Your task to perform on an android device: Open calendar and show me the fourth week of next month Image 0: 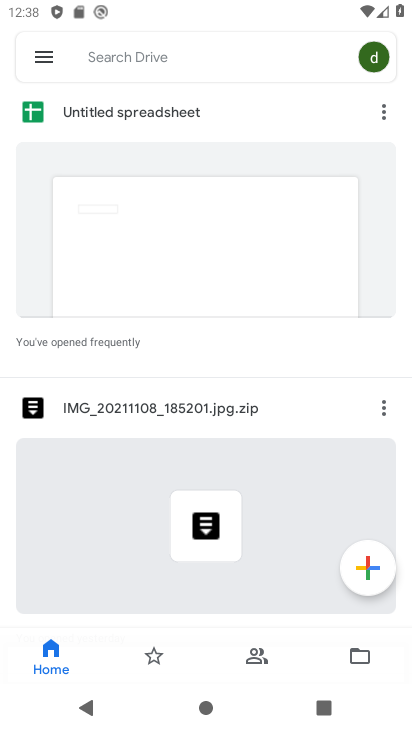
Step 0: press home button
Your task to perform on an android device: Open calendar and show me the fourth week of next month Image 1: 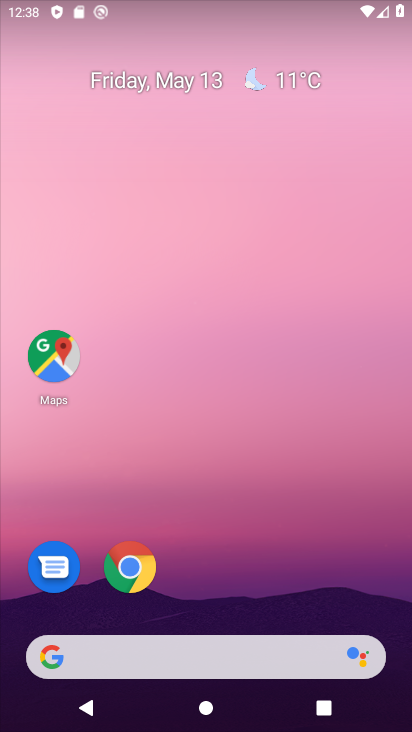
Step 1: drag from (223, 584) to (221, 228)
Your task to perform on an android device: Open calendar and show me the fourth week of next month Image 2: 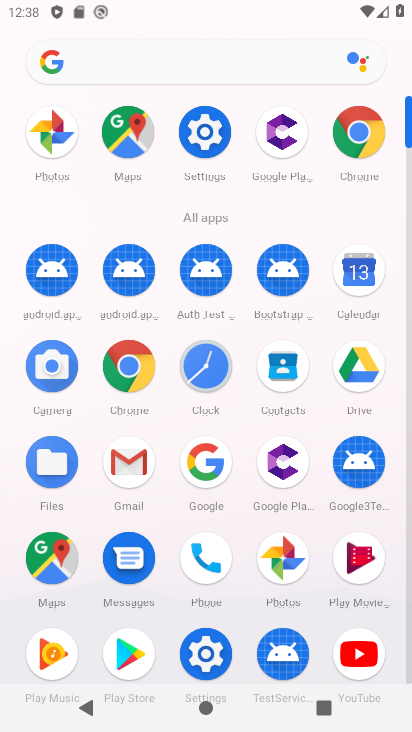
Step 2: click (354, 308)
Your task to perform on an android device: Open calendar and show me the fourth week of next month Image 3: 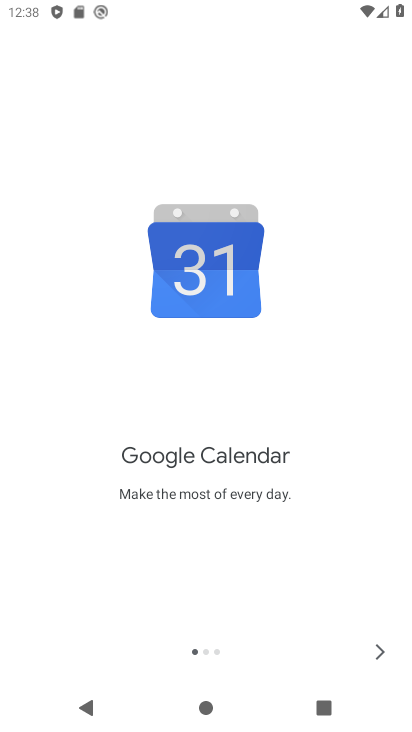
Step 3: click (383, 659)
Your task to perform on an android device: Open calendar and show me the fourth week of next month Image 4: 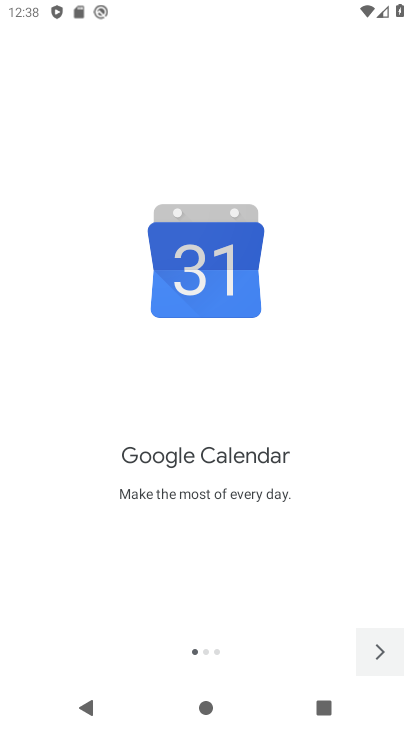
Step 4: click (367, 645)
Your task to perform on an android device: Open calendar and show me the fourth week of next month Image 5: 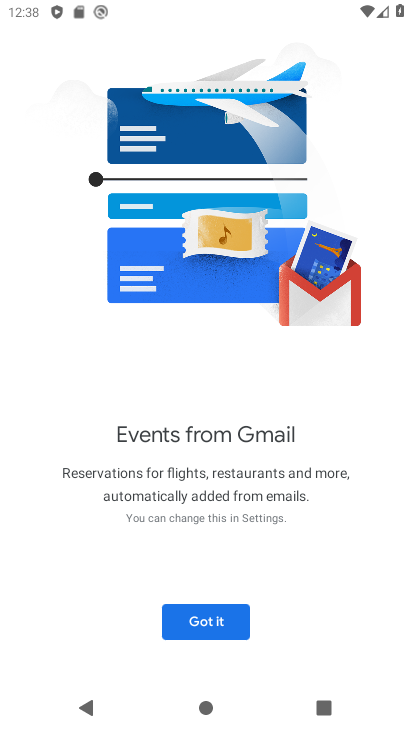
Step 5: click (220, 616)
Your task to perform on an android device: Open calendar and show me the fourth week of next month Image 6: 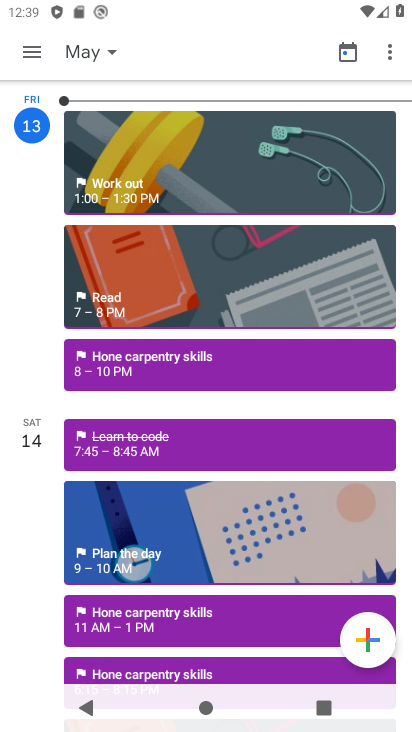
Step 6: click (24, 59)
Your task to perform on an android device: Open calendar and show me the fourth week of next month Image 7: 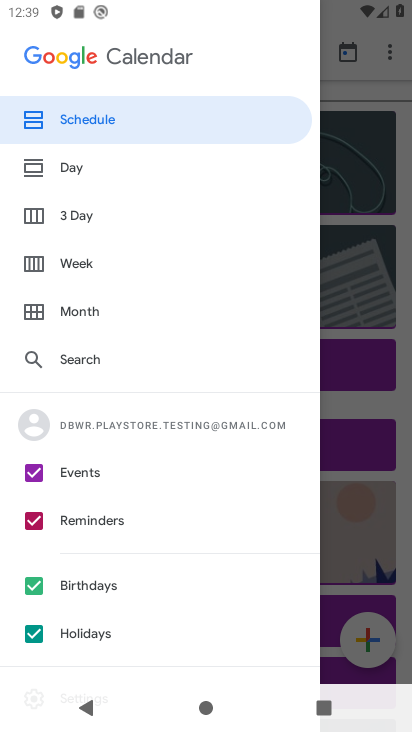
Step 7: click (96, 262)
Your task to perform on an android device: Open calendar and show me the fourth week of next month Image 8: 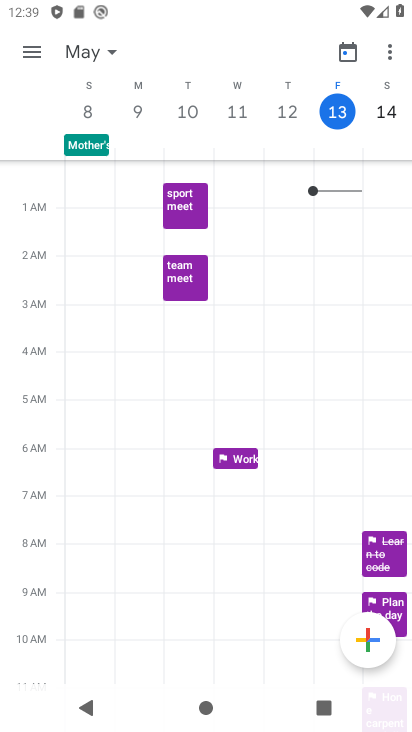
Step 8: click (91, 46)
Your task to perform on an android device: Open calendar and show me the fourth week of next month Image 9: 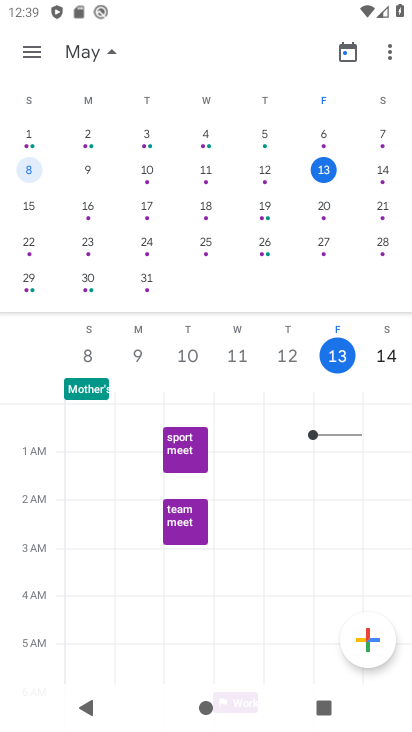
Step 9: drag from (336, 226) to (34, 218)
Your task to perform on an android device: Open calendar and show me the fourth week of next month Image 10: 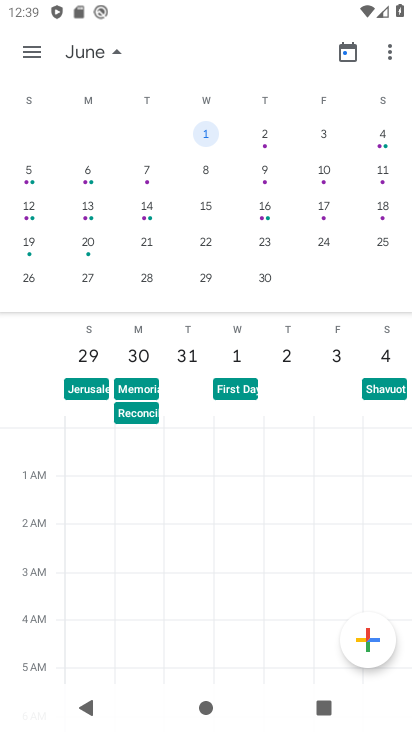
Step 10: click (23, 246)
Your task to perform on an android device: Open calendar and show me the fourth week of next month Image 11: 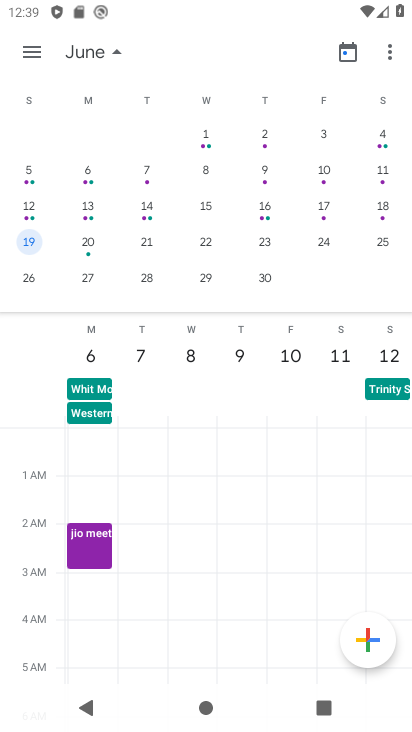
Step 11: click (32, 246)
Your task to perform on an android device: Open calendar and show me the fourth week of next month Image 12: 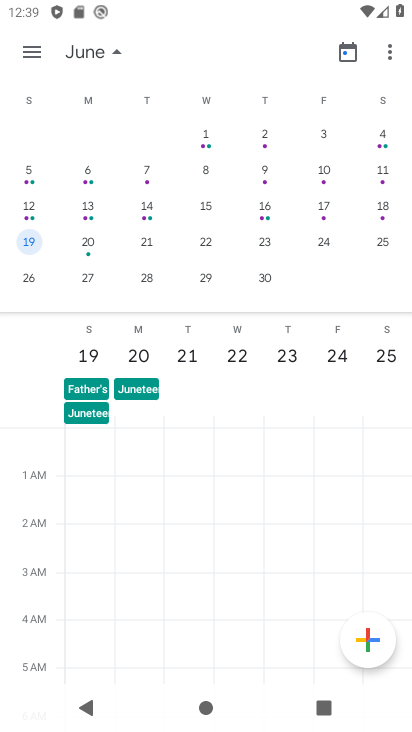
Step 12: task complete